Your task to perform on an android device: Open display settings Image 0: 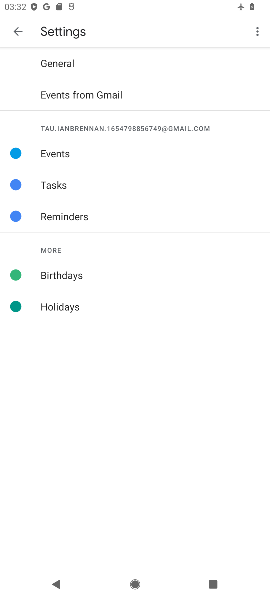
Step 0: press home button
Your task to perform on an android device: Open display settings Image 1: 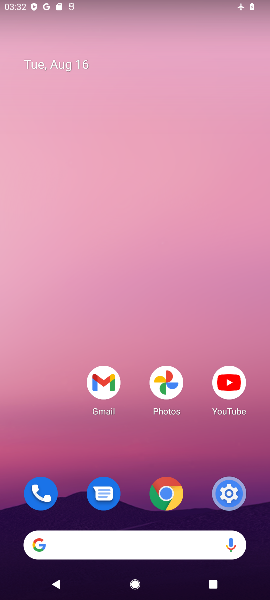
Step 1: drag from (62, 468) to (108, 56)
Your task to perform on an android device: Open display settings Image 2: 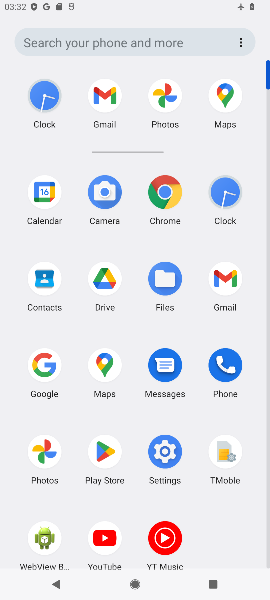
Step 2: click (171, 452)
Your task to perform on an android device: Open display settings Image 3: 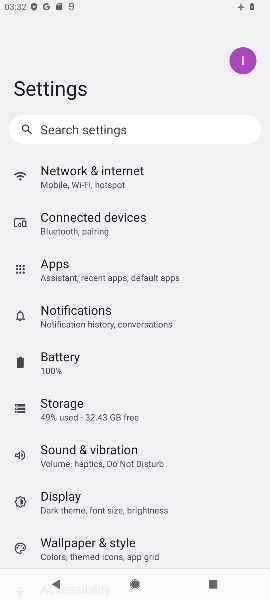
Step 3: drag from (212, 492) to (234, 260)
Your task to perform on an android device: Open display settings Image 4: 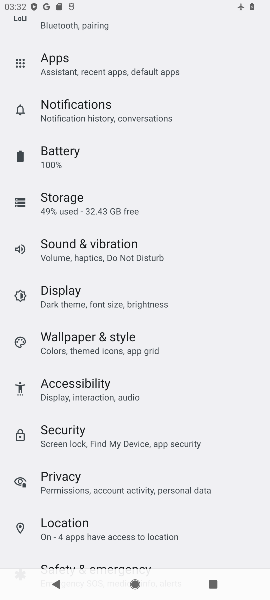
Step 4: drag from (235, 470) to (236, 308)
Your task to perform on an android device: Open display settings Image 5: 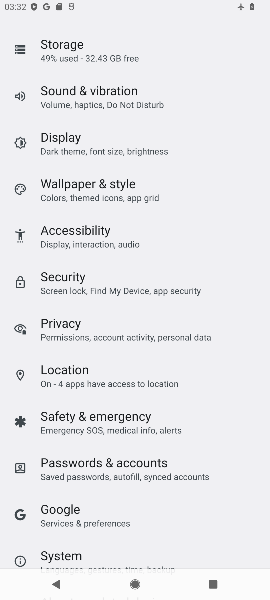
Step 5: drag from (227, 502) to (226, 315)
Your task to perform on an android device: Open display settings Image 6: 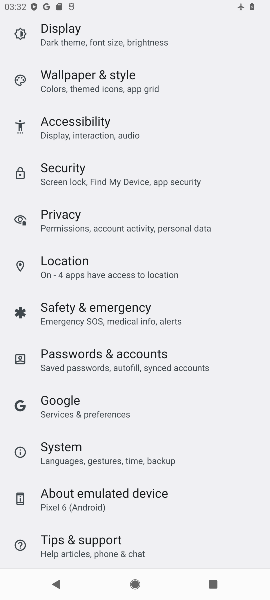
Step 6: drag from (230, 515) to (240, 271)
Your task to perform on an android device: Open display settings Image 7: 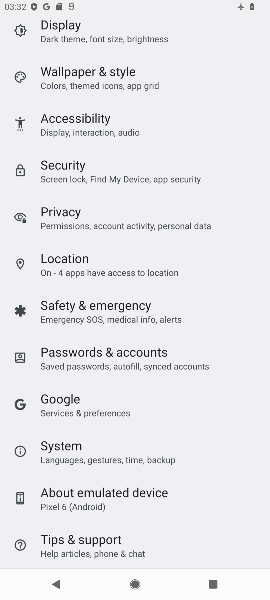
Step 7: drag from (242, 160) to (231, 336)
Your task to perform on an android device: Open display settings Image 8: 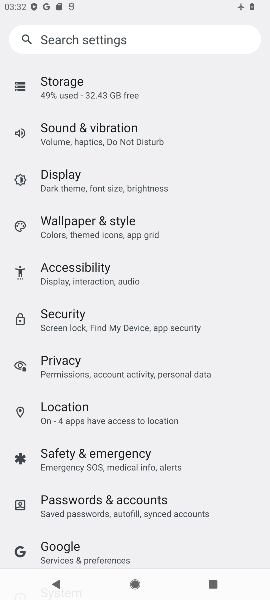
Step 8: drag from (236, 182) to (245, 334)
Your task to perform on an android device: Open display settings Image 9: 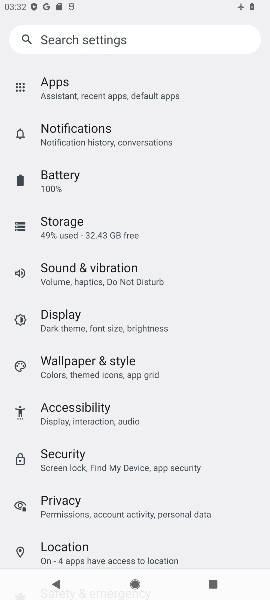
Step 9: drag from (228, 144) to (229, 339)
Your task to perform on an android device: Open display settings Image 10: 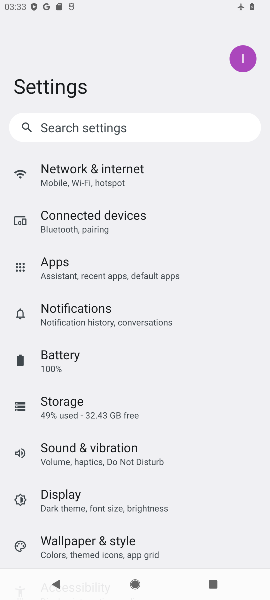
Step 10: click (169, 498)
Your task to perform on an android device: Open display settings Image 11: 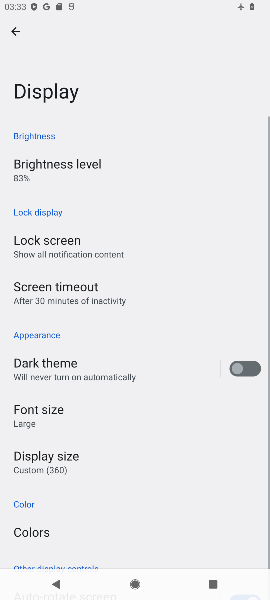
Step 11: task complete